Your task to perform on an android device: uninstall "Speedtest by Ookla" Image 0: 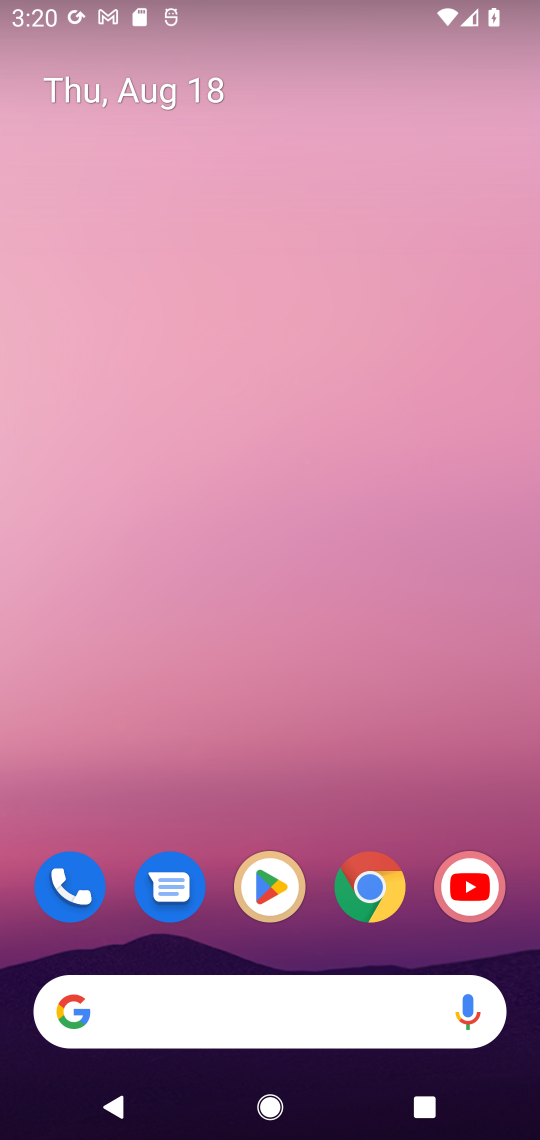
Step 0: click (268, 889)
Your task to perform on an android device: uninstall "Speedtest by Ookla" Image 1: 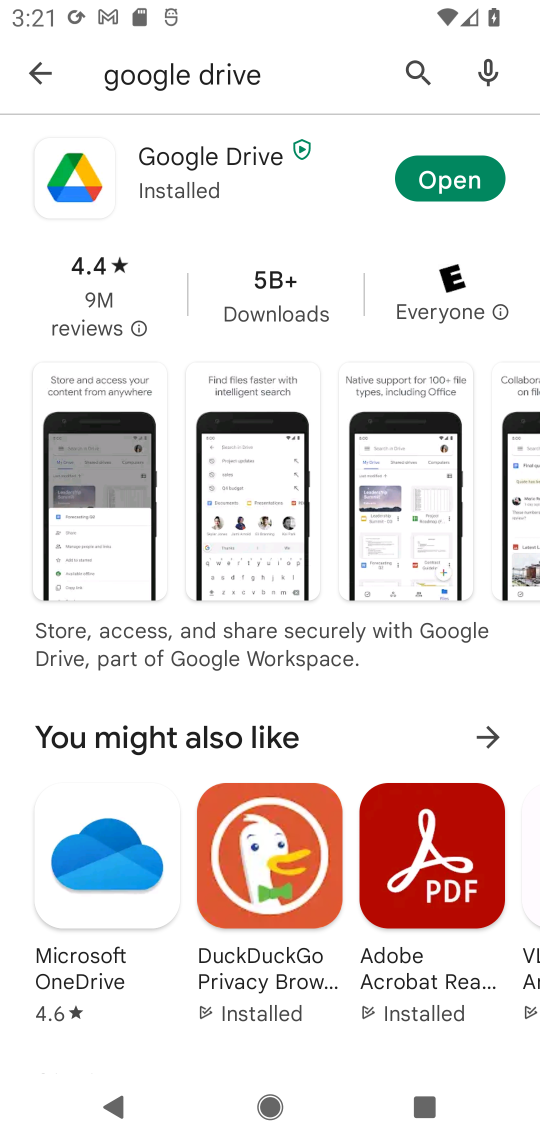
Step 1: click (405, 61)
Your task to perform on an android device: uninstall "Speedtest by Ookla" Image 2: 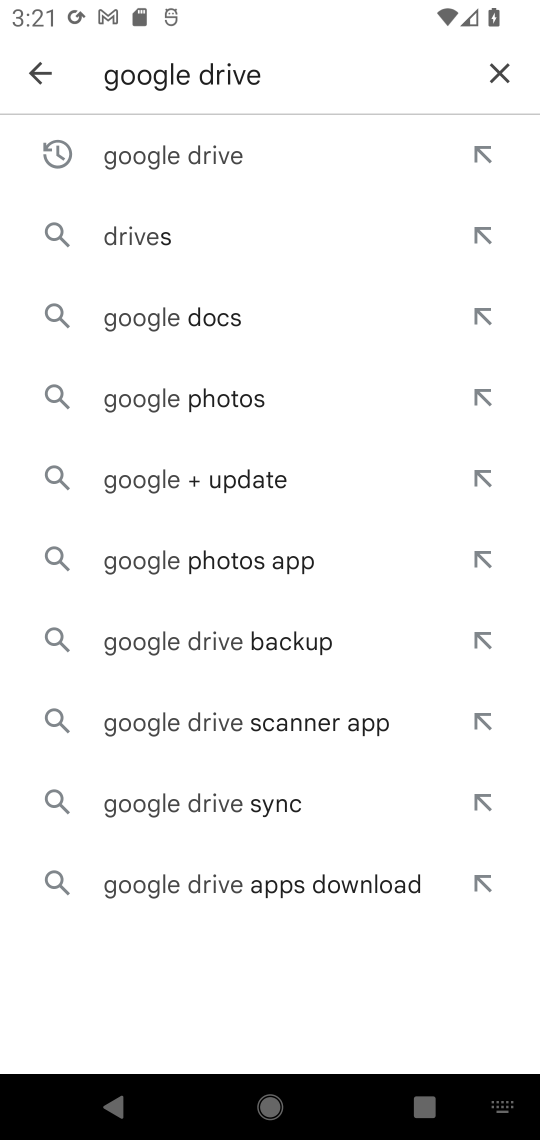
Step 2: click (497, 75)
Your task to perform on an android device: uninstall "Speedtest by Ookla" Image 3: 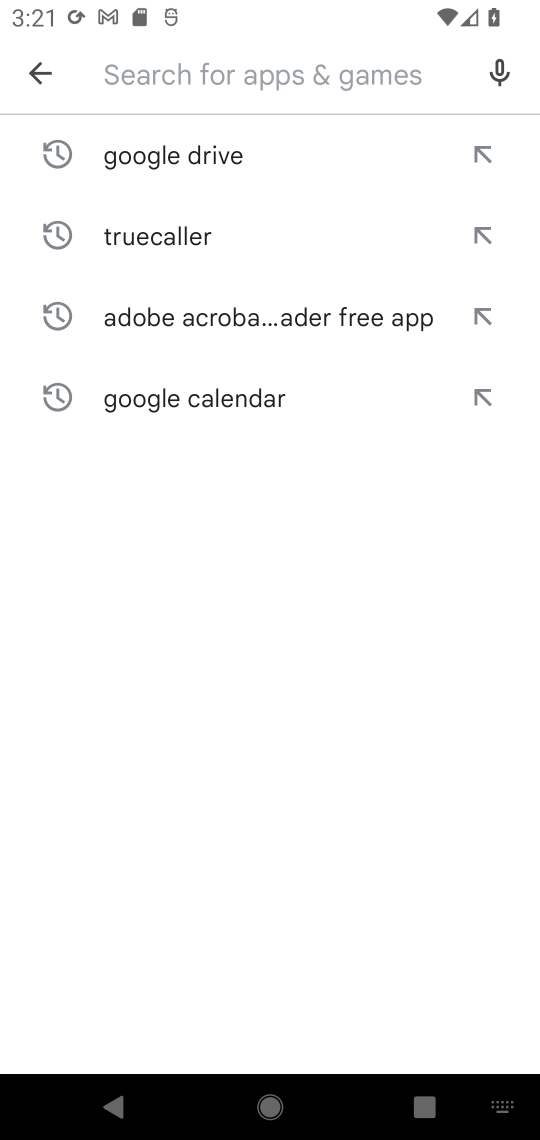
Step 3: type "Speedtest by Ookla"
Your task to perform on an android device: uninstall "Speedtest by Ookla" Image 4: 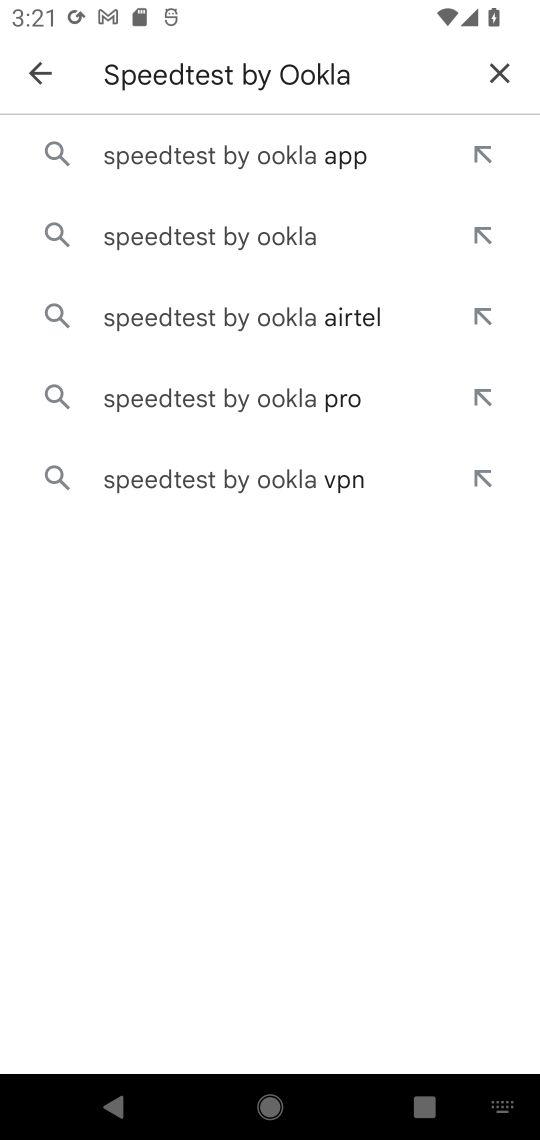
Step 4: click (257, 239)
Your task to perform on an android device: uninstall "Speedtest by Ookla" Image 5: 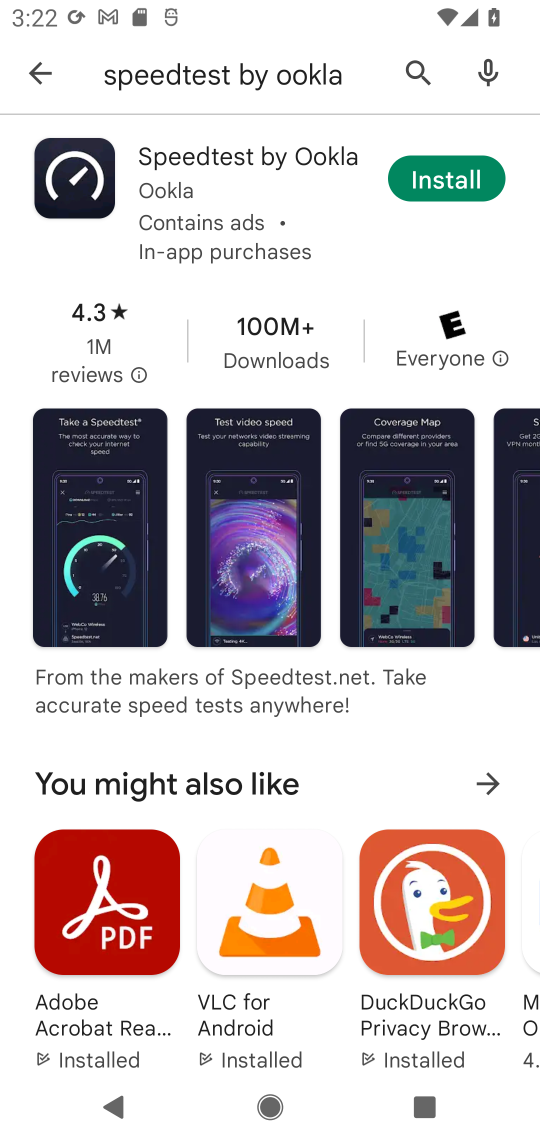
Step 5: task complete